Your task to perform on an android device: open app "eBay: The shopping marketplace" Image 0: 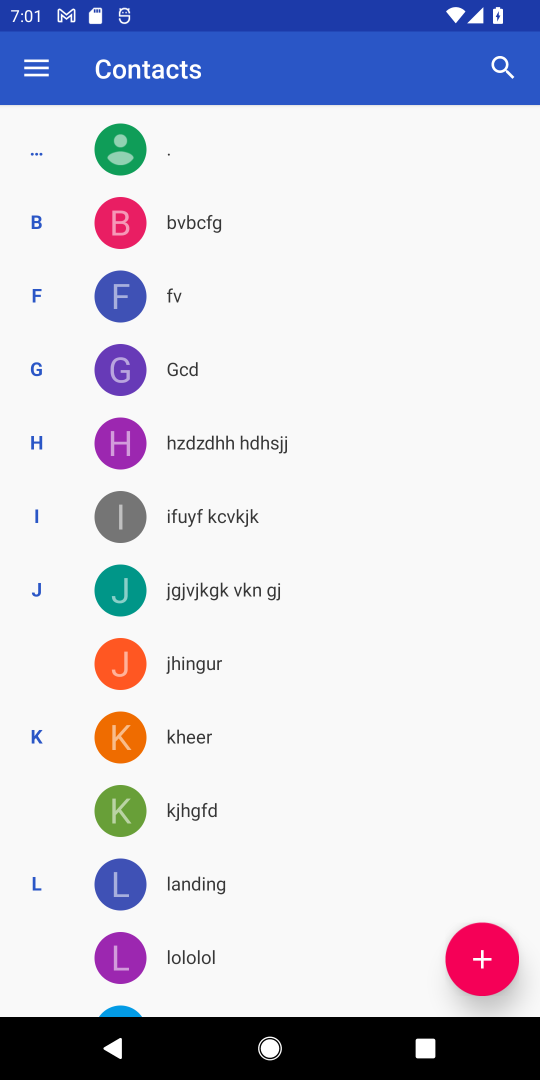
Step 0: press home button
Your task to perform on an android device: open app "eBay: The shopping marketplace" Image 1: 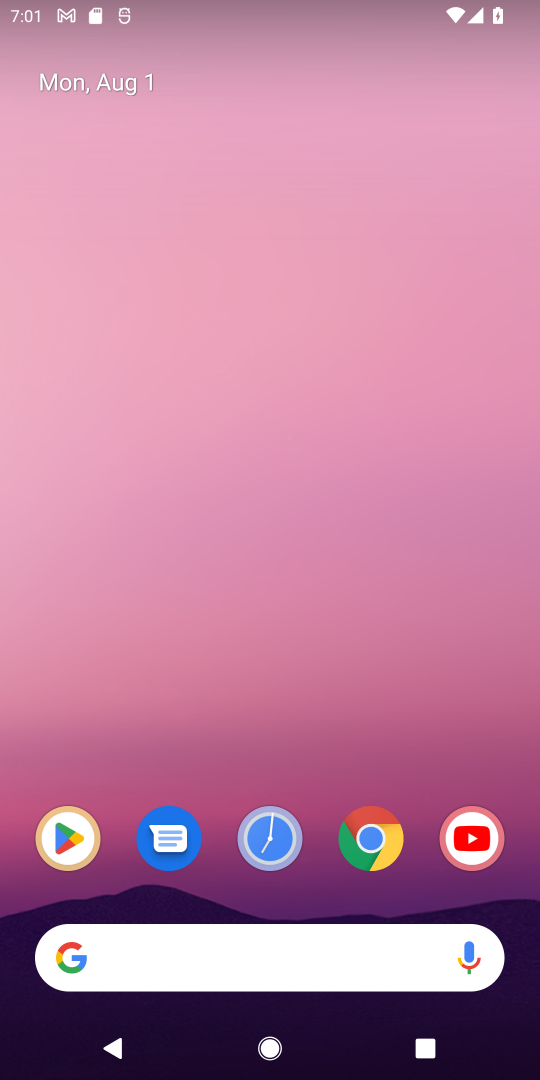
Step 1: click (65, 827)
Your task to perform on an android device: open app "eBay: The shopping marketplace" Image 2: 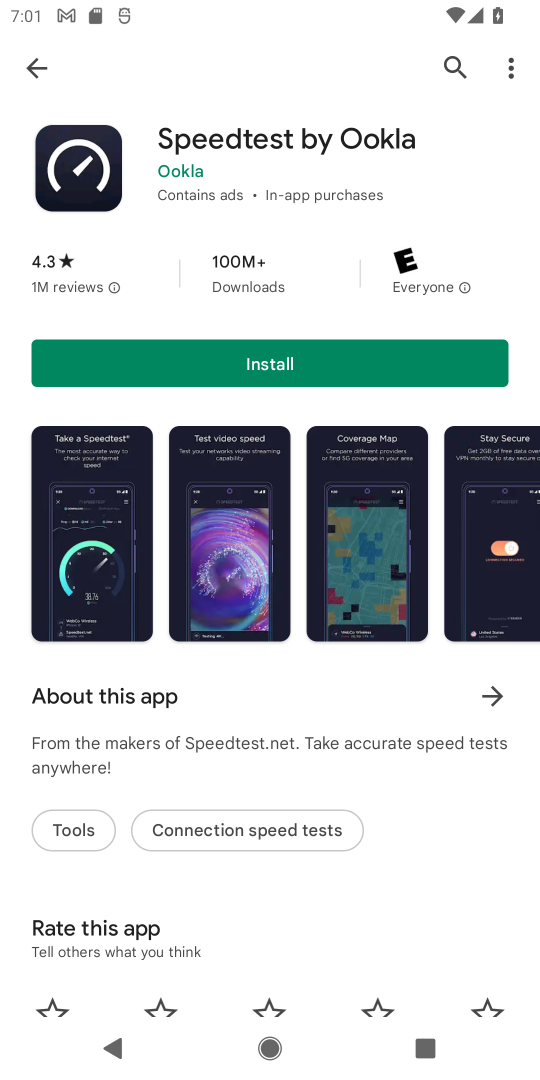
Step 2: click (453, 59)
Your task to perform on an android device: open app "eBay: The shopping marketplace" Image 3: 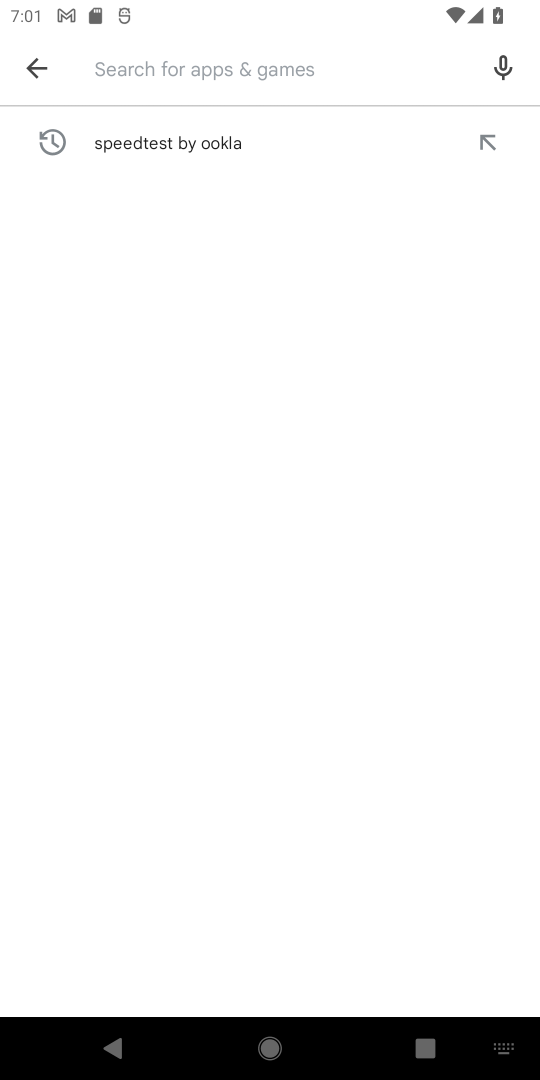
Step 3: type "ebay: the shopping marketplace"
Your task to perform on an android device: open app "eBay: The shopping marketplace" Image 4: 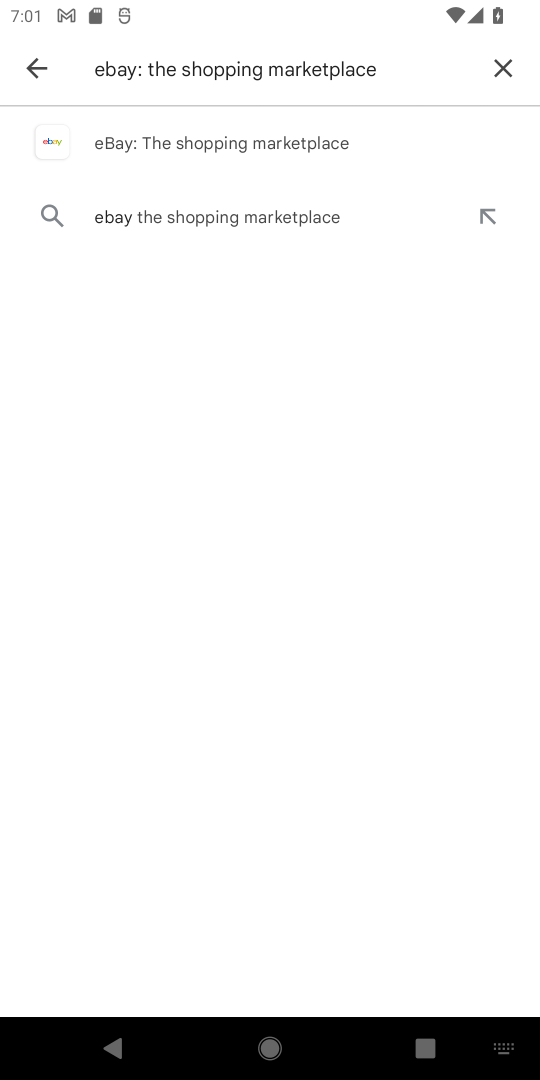
Step 4: click (228, 157)
Your task to perform on an android device: open app "eBay: The shopping marketplace" Image 5: 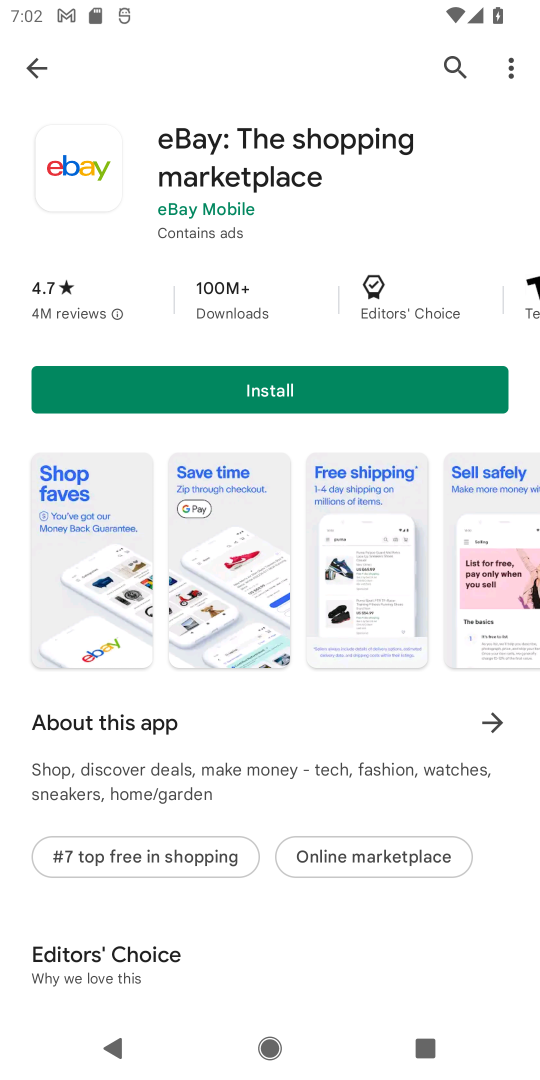
Step 5: task complete